Your task to perform on an android device: change notification settings in the gmail app Image 0: 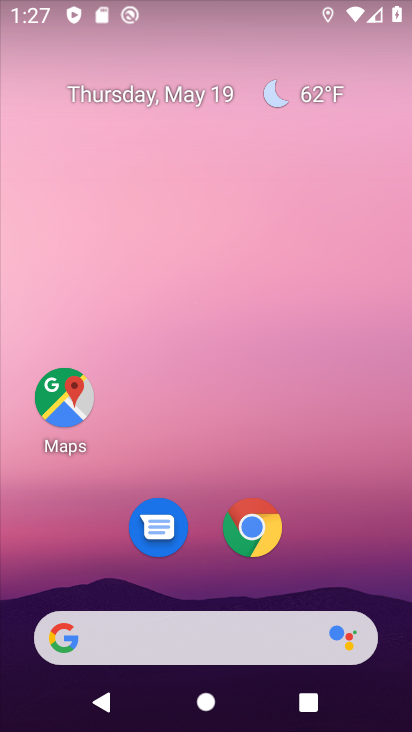
Step 0: drag from (320, 551) to (325, 150)
Your task to perform on an android device: change notification settings in the gmail app Image 1: 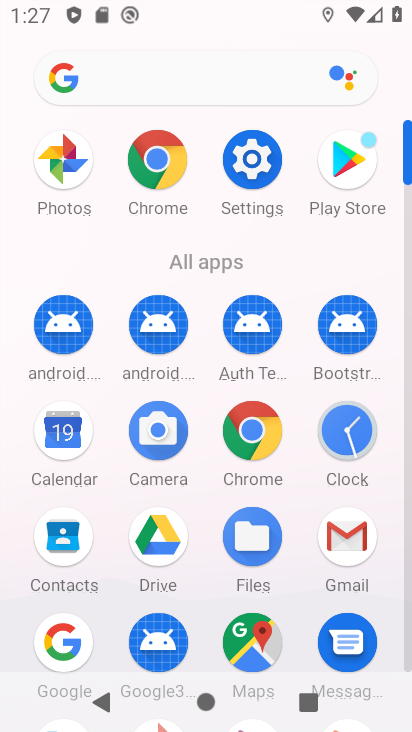
Step 1: click (333, 521)
Your task to perform on an android device: change notification settings in the gmail app Image 2: 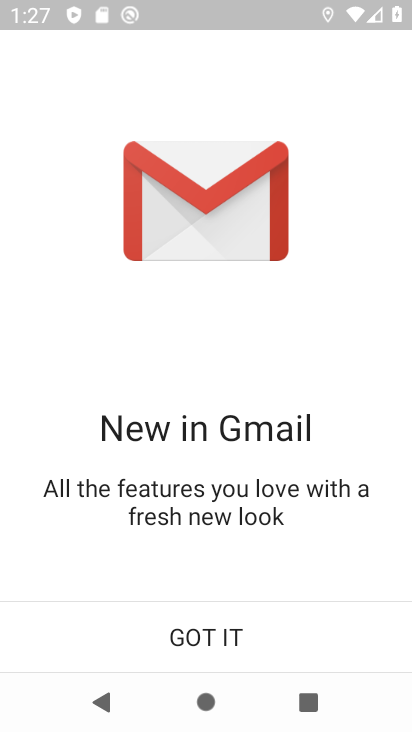
Step 2: click (225, 641)
Your task to perform on an android device: change notification settings in the gmail app Image 3: 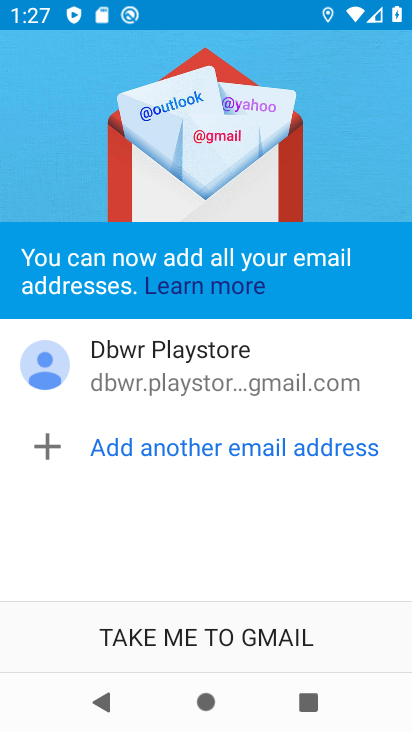
Step 3: click (225, 639)
Your task to perform on an android device: change notification settings in the gmail app Image 4: 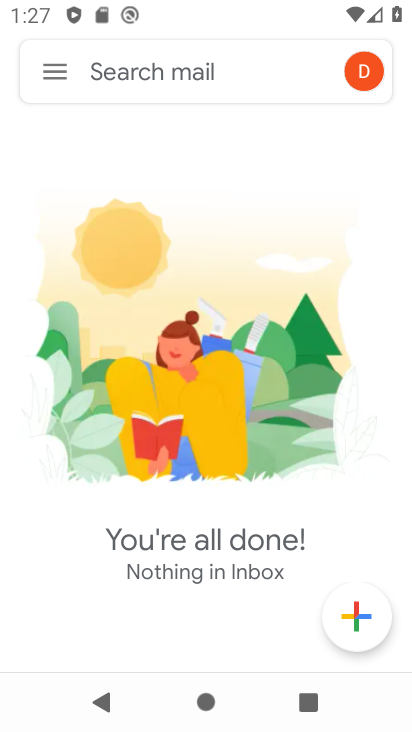
Step 4: click (66, 69)
Your task to perform on an android device: change notification settings in the gmail app Image 5: 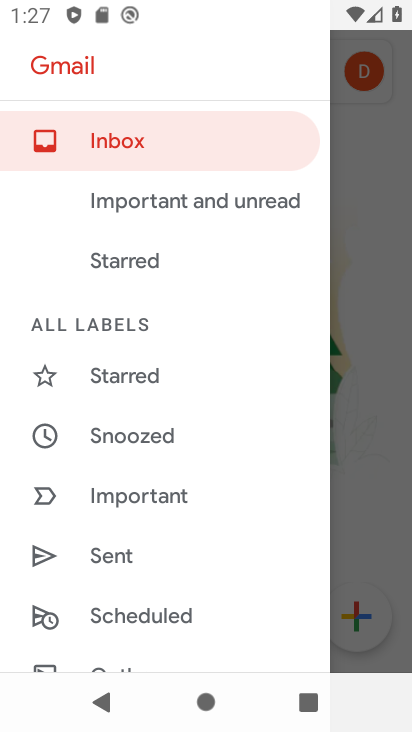
Step 5: drag from (222, 606) to (244, 185)
Your task to perform on an android device: change notification settings in the gmail app Image 6: 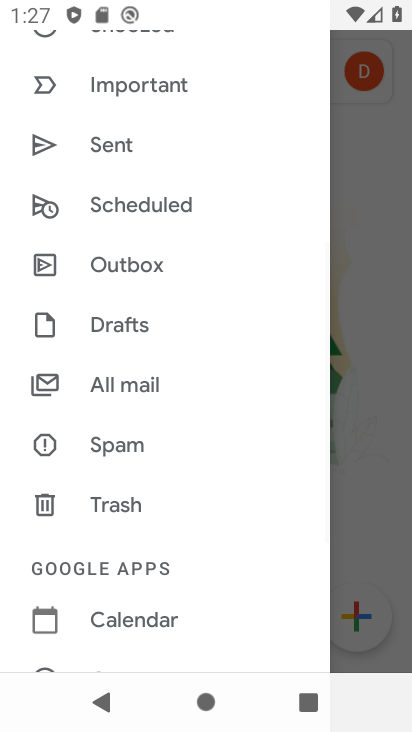
Step 6: drag from (215, 606) to (262, 212)
Your task to perform on an android device: change notification settings in the gmail app Image 7: 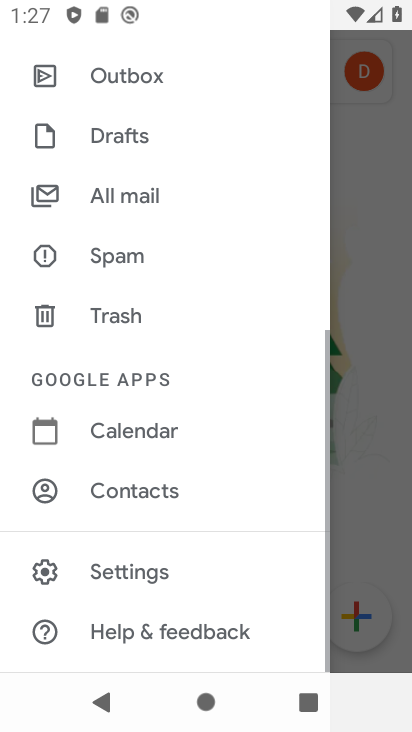
Step 7: click (169, 571)
Your task to perform on an android device: change notification settings in the gmail app Image 8: 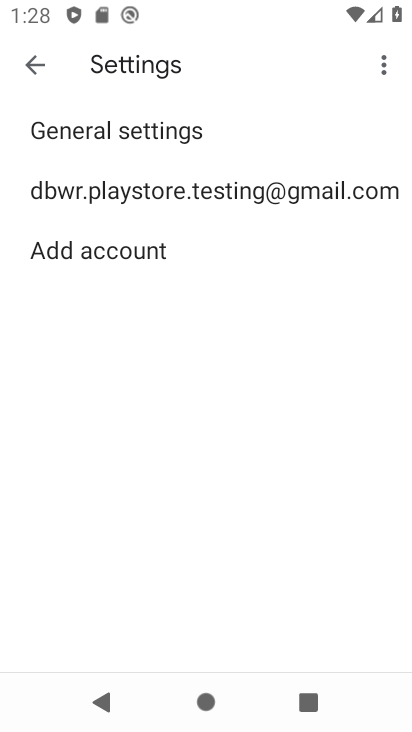
Step 8: click (302, 196)
Your task to perform on an android device: change notification settings in the gmail app Image 9: 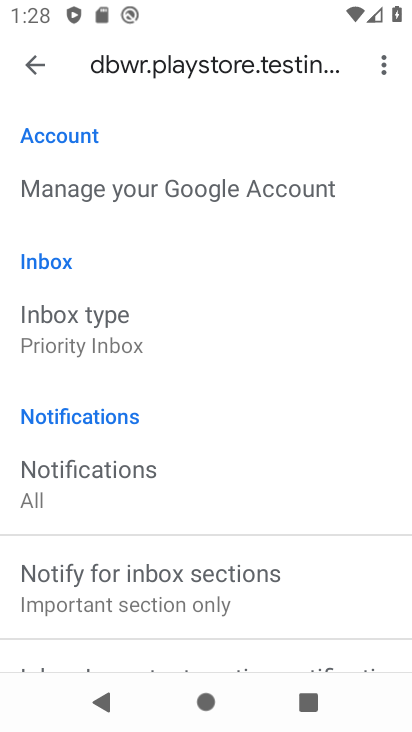
Step 9: click (163, 458)
Your task to perform on an android device: change notification settings in the gmail app Image 10: 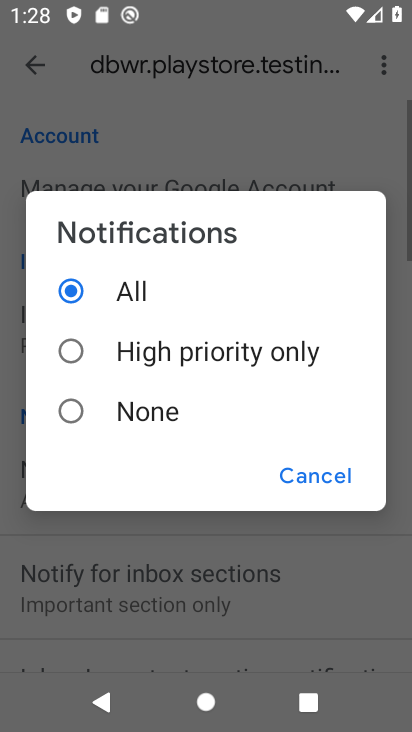
Step 10: click (184, 321)
Your task to perform on an android device: change notification settings in the gmail app Image 11: 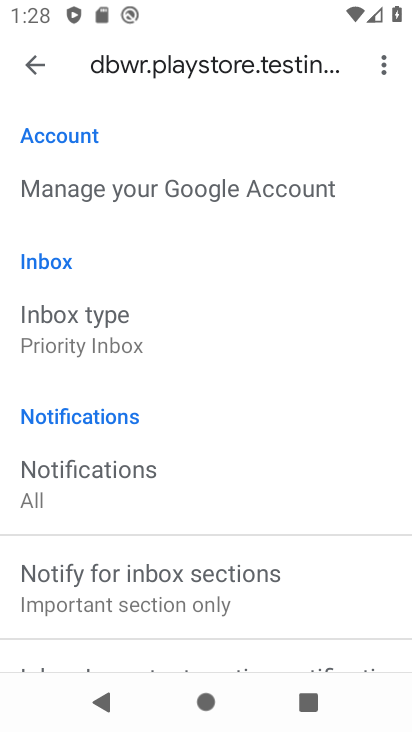
Step 11: click (143, 461)
Your task to perform on an android device: change notification settings in the gmail app Image 12: 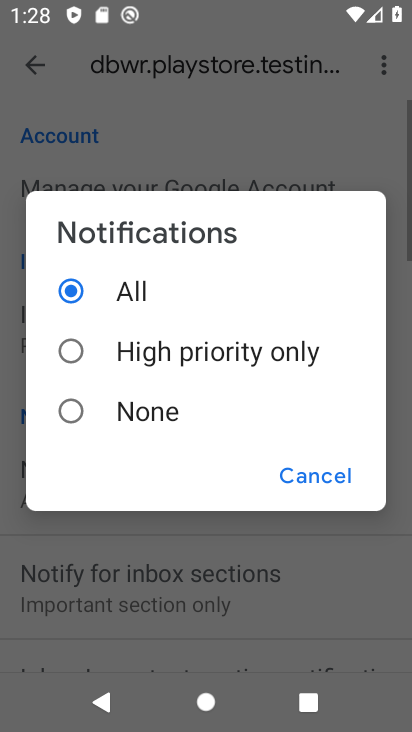
Step 12: click (172, 404)
Your task to perform on an android device: change notification settings in the gmail app Image 13: 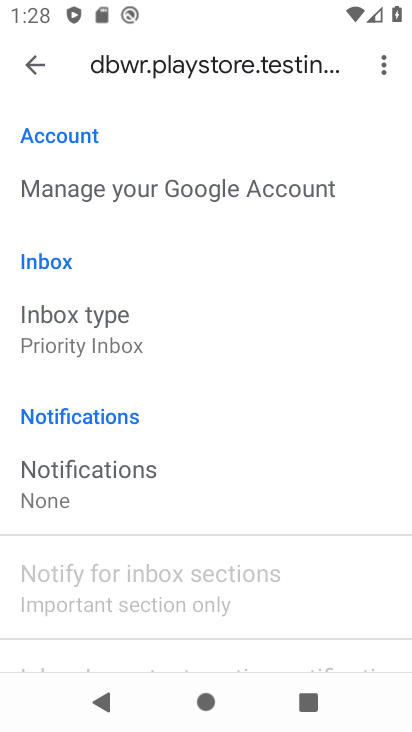
Step 13: task complete